Your task to perform on an android device: What's the weather going to be this weekend? Image 0: 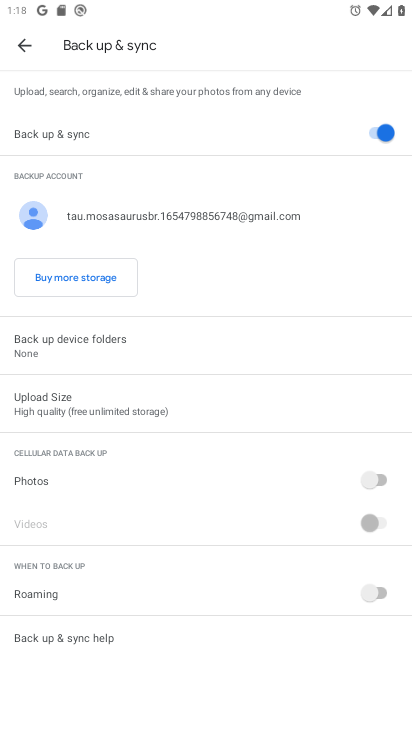
Step 0: press home button
Your task to perform on an android device: What's the weather going to be this weekend? Image 1: 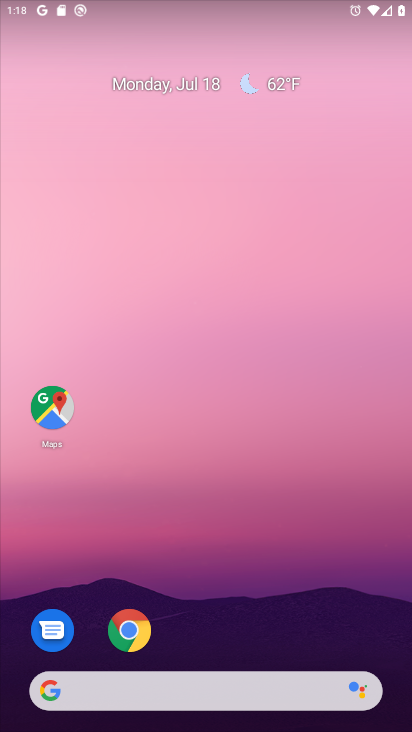
Step 1: drag from (246, 591) to (246, 212)
Your task to perform on an android device: What's the weather going to be this weekend? Image 2: 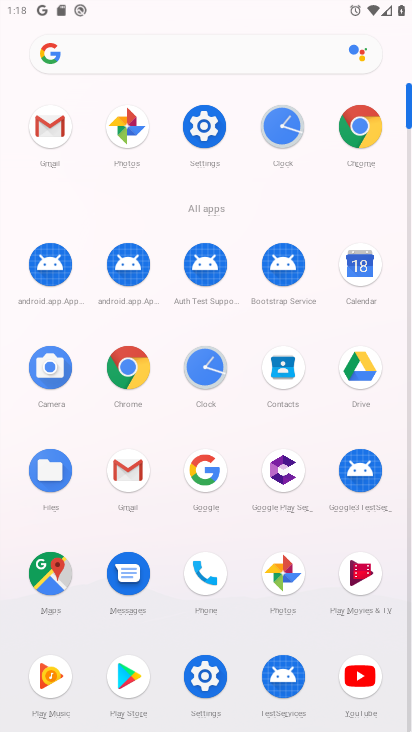
Step 2: click (198, 473)
Your task to perform on an android device: What's the weather going to be this weekend? Image 3: 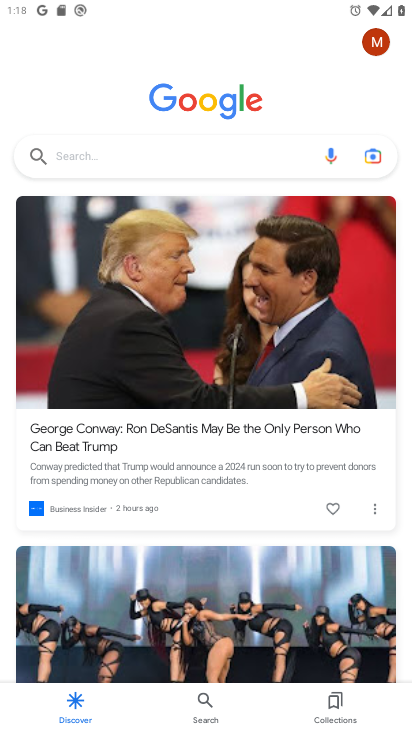
Step 3: click (173, 161)
Your task to perform on an android device: What's the weather going to be this weekend? Image 4: 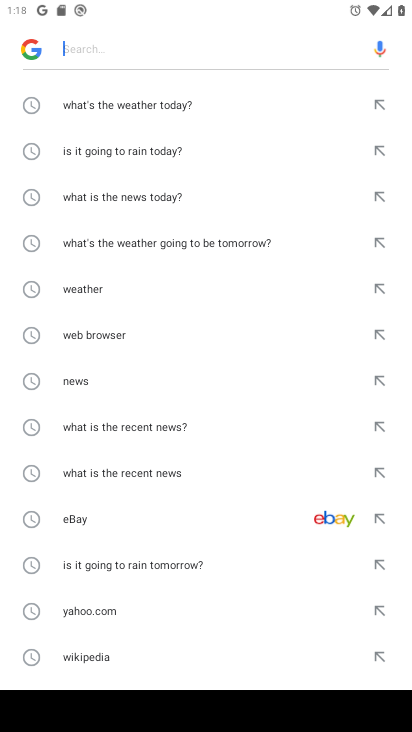
Step 4: drag from (162, 636) to (169, 125)
Your task to perform on an android device: What's the weather going to be this weekend? Image 5: 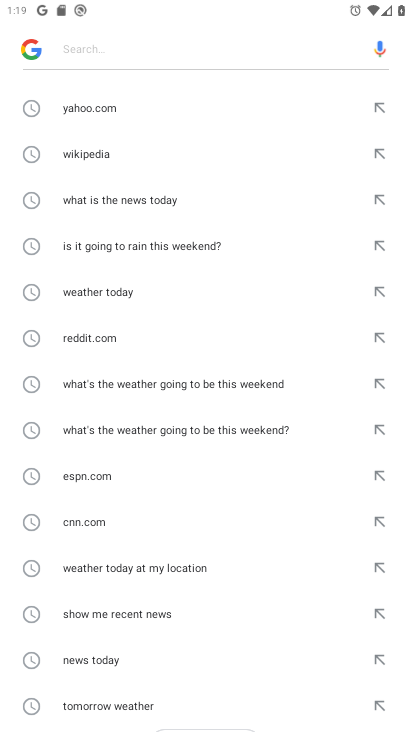
Step 5: click (224, 388)
Your task to perform on an android device: What's the weather going to be this weekend? Image 6: 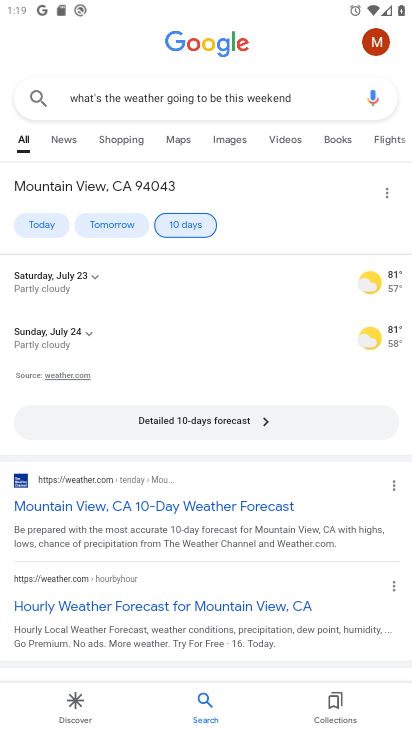
Step 6: click (199, 420)
Your task to perform on an android device: What's the weather going to be this weekend? Image 7: 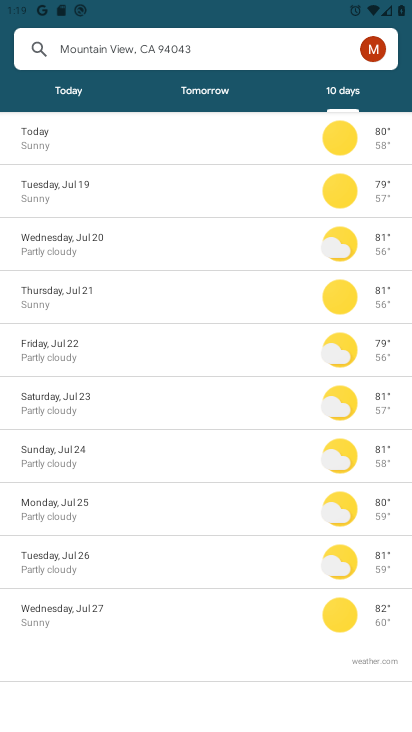
Step 7: task complete